Your task to perform on an android device: uninstall "Pandora - Music & Podcasts" Image 0: 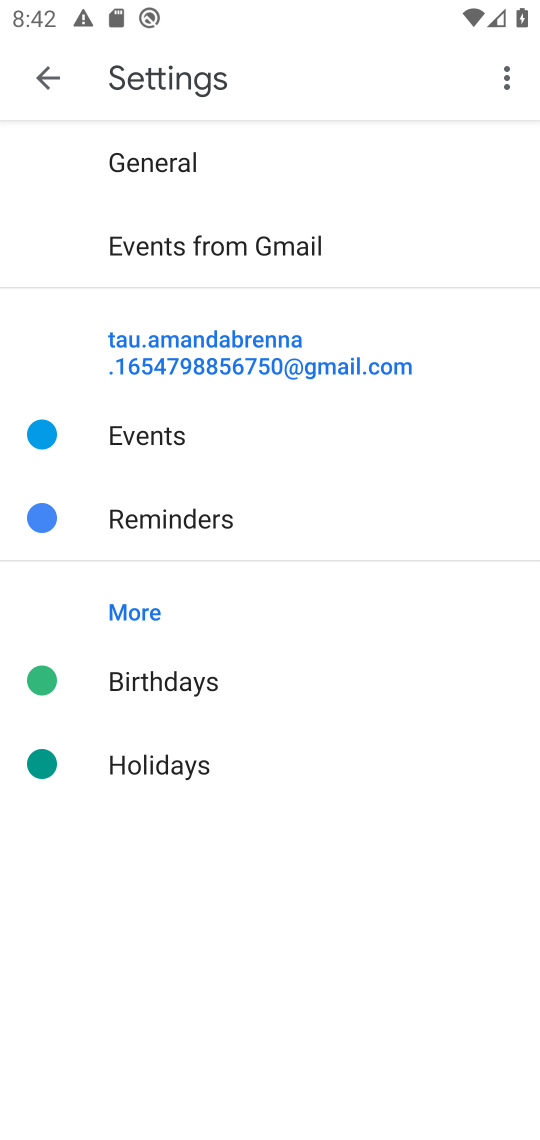
Step 0: press home button
Your task to perform on an android device: uninstall "Pandora - Music & Podcasts" Image 1: 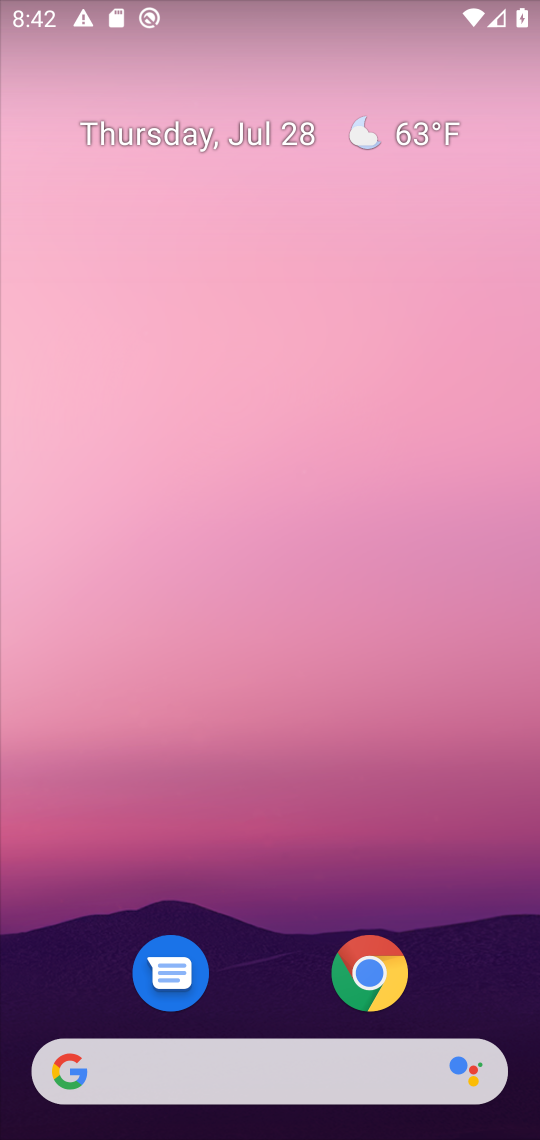
Step 1: drag from (245, 1034) to (416, 234)
Your task to perform on an android device: uninstall "Pandora - Music & Podcasts" Image 2: 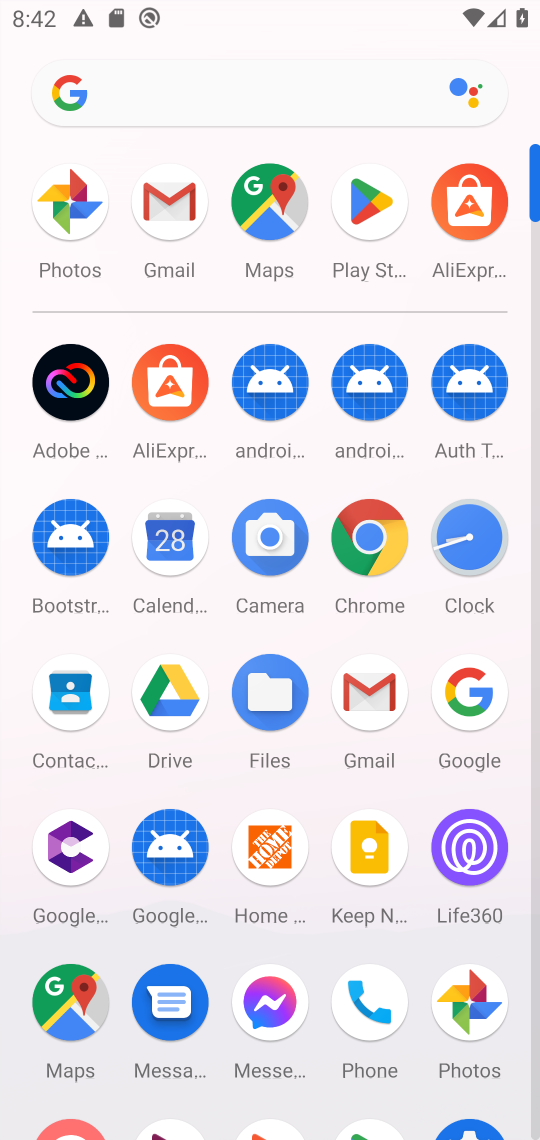
Step 2: click (366, 243)
Your task to perform on an android device: uninstall "Pandora - Music & Podcasts" Image 3: 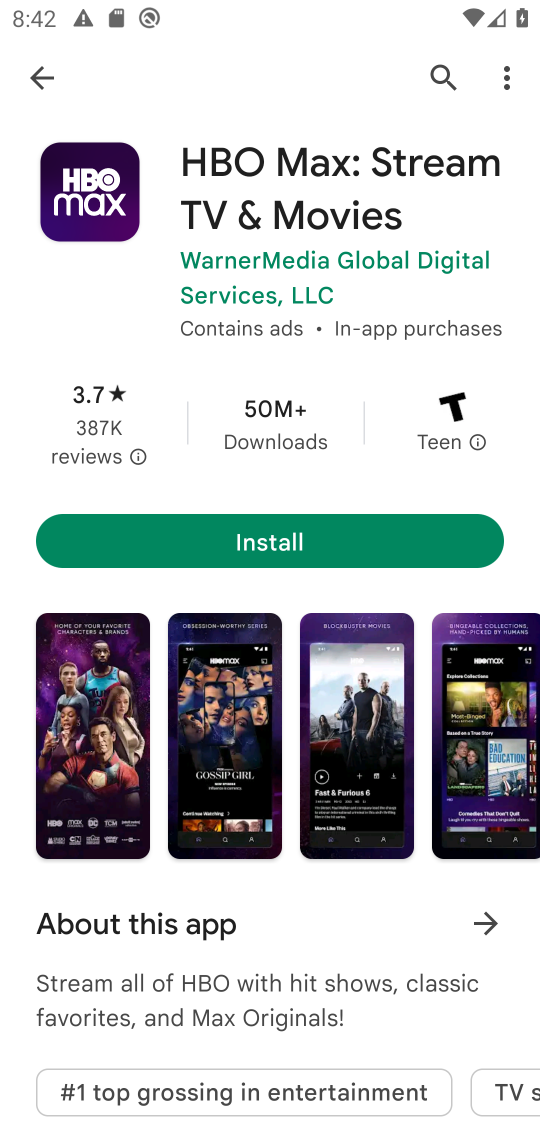
Step 3: click (43, 81)
Your task to perform on an android device: uninstall "Pandora - Music & Podcasts" Image 4: 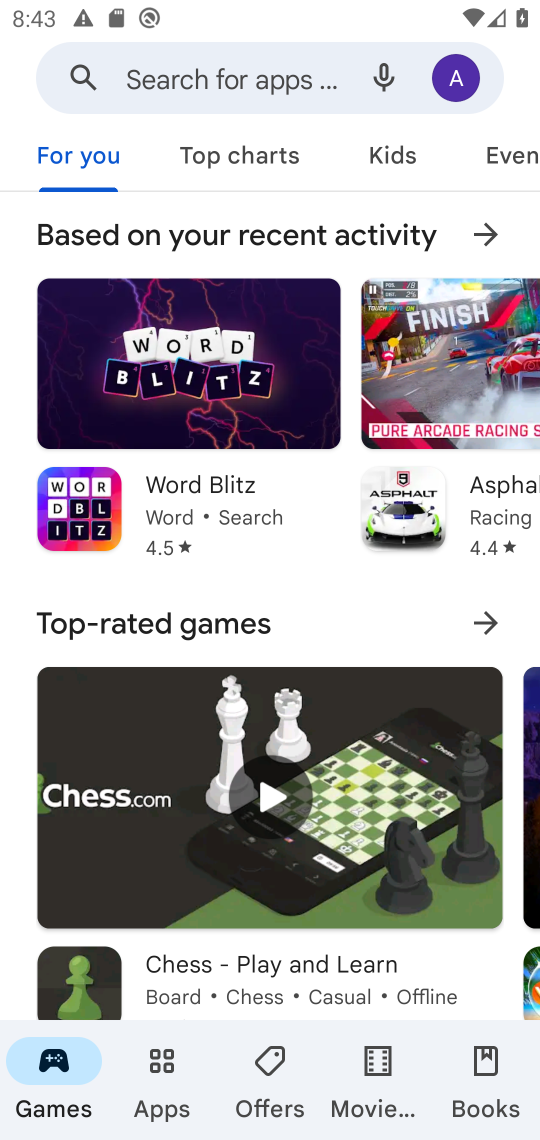
Step 4: click (199, 82)
Your task to perform on an android device: uninstall "Pandora - Music & Podcasts" Image 5: 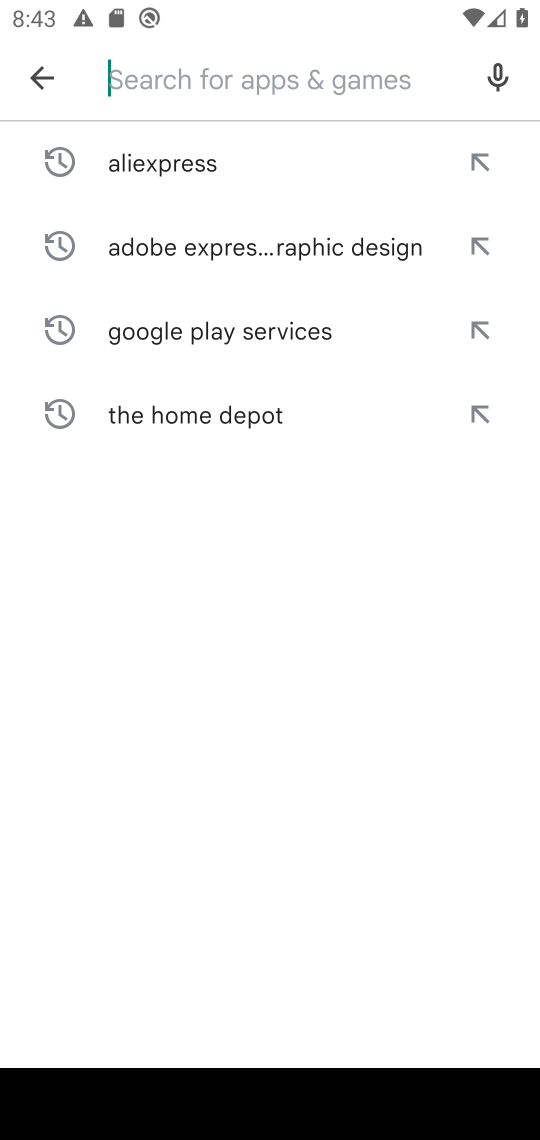
Step 5: type "Pandora - Music & Podcasts"
Your task to perform on an android device: uninstall "Pandora - Music & Podcasts" Image 6: 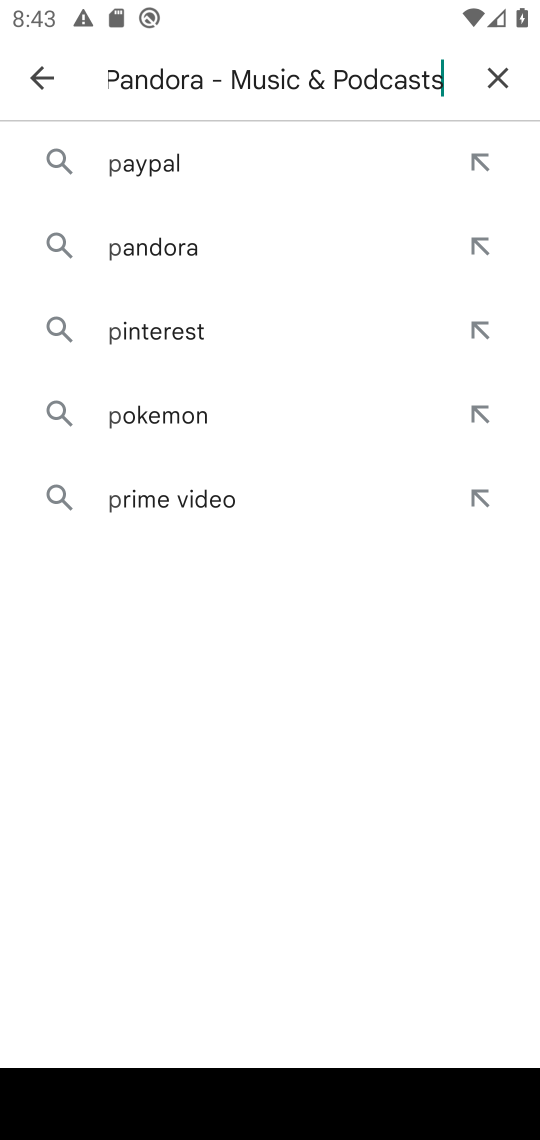
Step 6: type ""
Your task to perform on an android device: uninstall "Pandora - Music & Podcasts" Image 7: 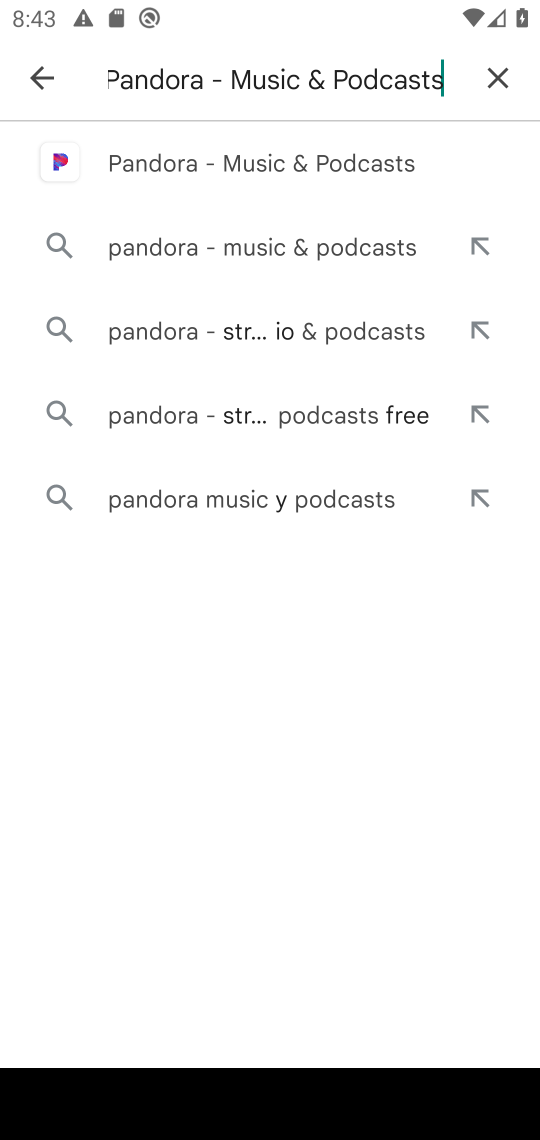
Step 7: click (253, 172)
Your task to perform on an android device: uninstall "Pandora - Music & Podcasts" Image 8: 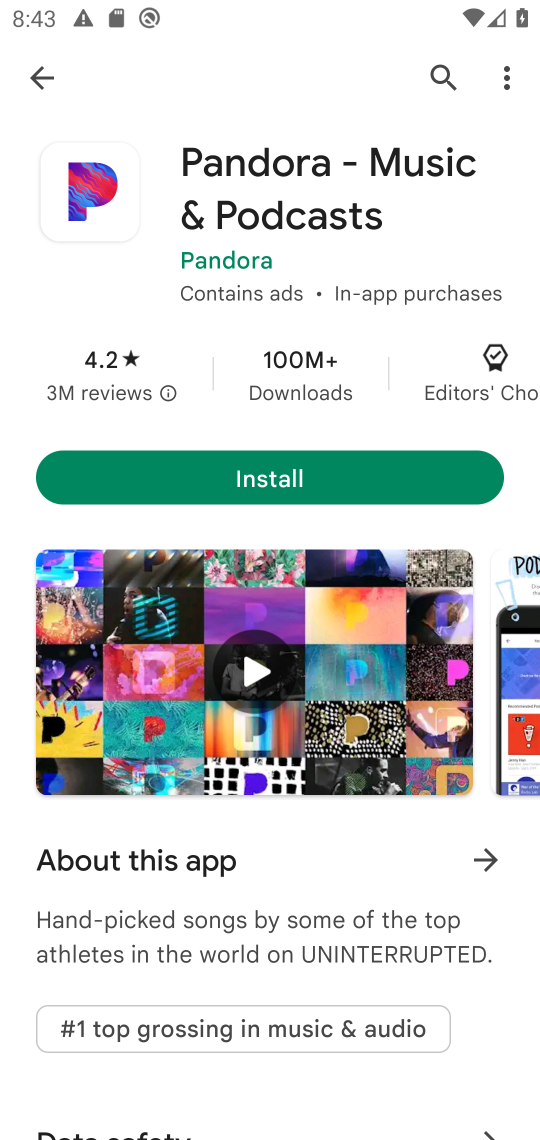
Step 8: task complete